Your task to perform on an android device: Open the Play Movies app and select the watchlist tab. Image 0: 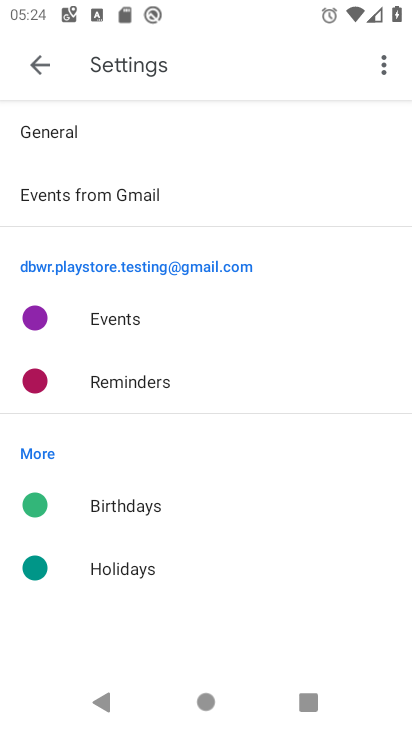
Step 0: press home button
Your task to perform on an android device: Open the Play Movies app and select the watchlist tab. Image 1: 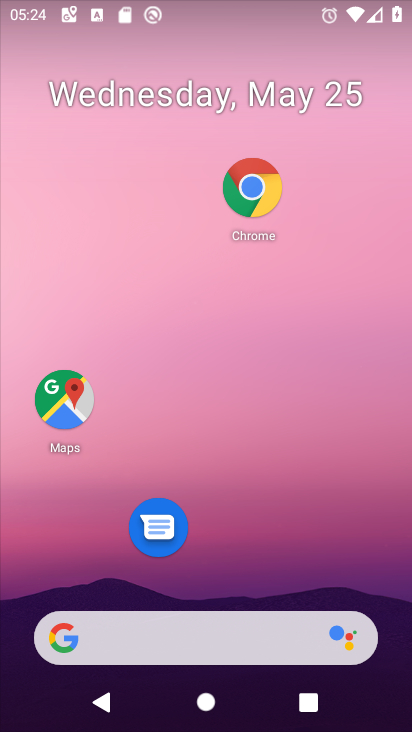
Step 1: drag from (258, 592) to (247, 173)
Your task to perform on an android device: Open the Play Movies app and select the watchlist tab. Image 2: 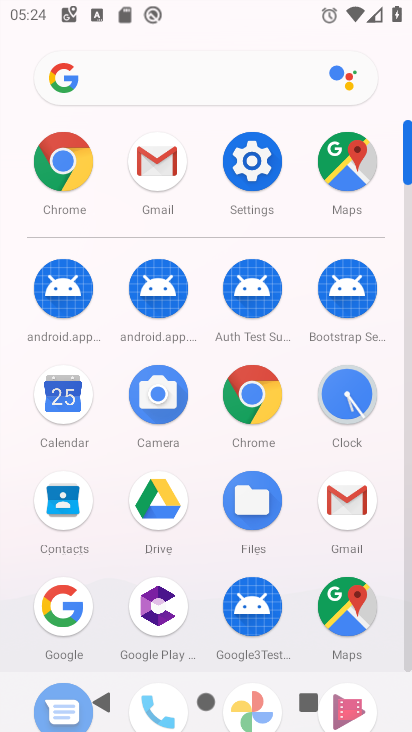
Step 2: drag from (358, 651) to (337, 337)
Your task to perform on an android device: Open the Play Movies app and select the watchlist tab. Image 3: 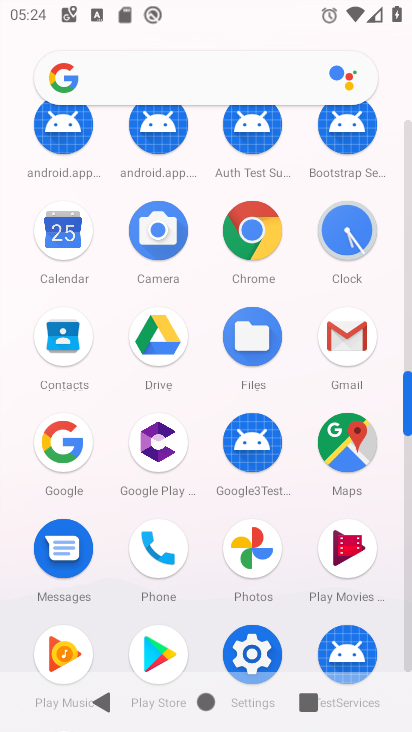
Step 3: click (346, 544)
Your task to perform on an android device: Open the Play Movies app and select the watchlist tab. Image 4: 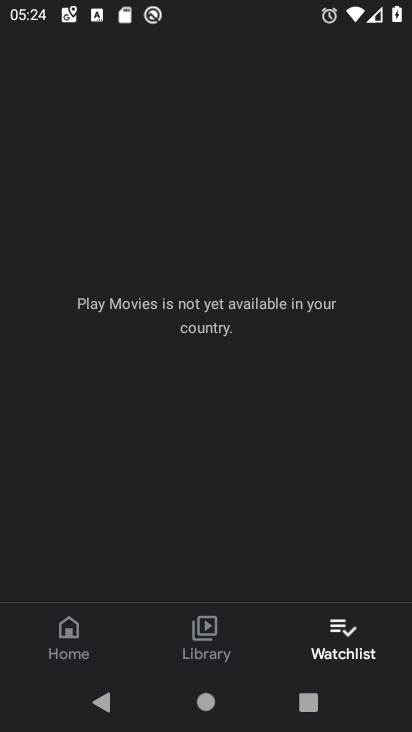
Step 4: click (384, 633)
Your task to perform on an android device: Open the Play Movies app and select the watchlist tab. Image 5: 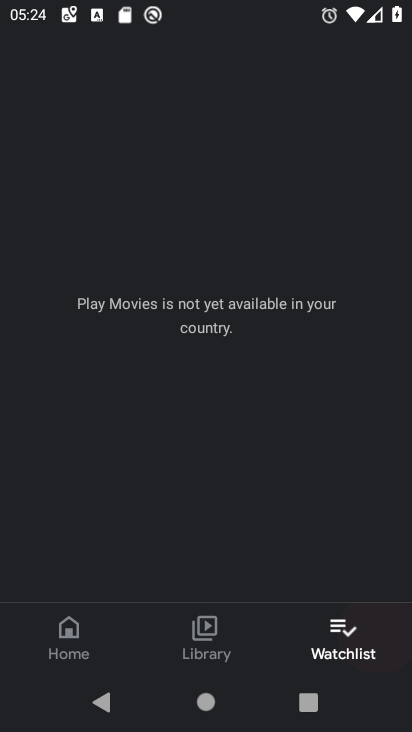
Step 5: click (285, 640)
Your task to perform on an android device: Open the Play Movies app and select the watchlist tab. Image 6: 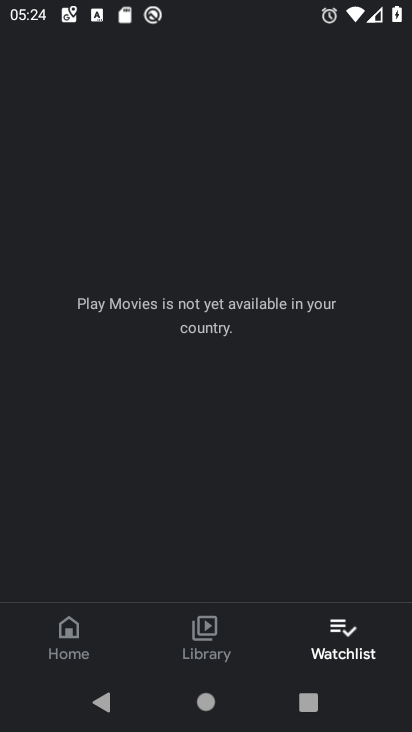
Step 6: click (330, 634)
Your task to perform on an android device: Open the Play Movies app and select the watchlist tab. Image 7: 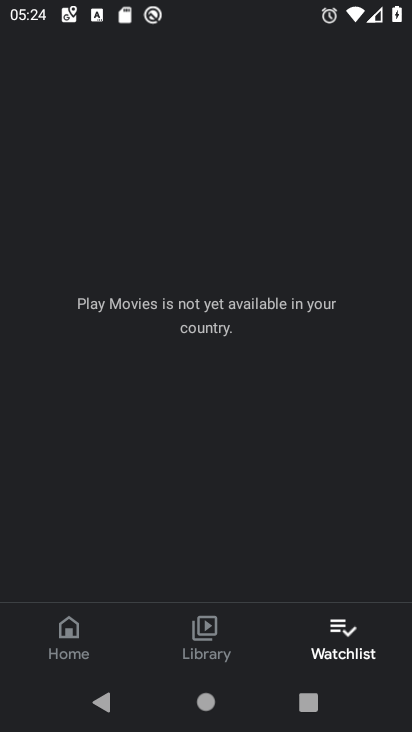
Step 7: task complete